Your task to perform on an android device: uninstall "Truecaller" Image 0: 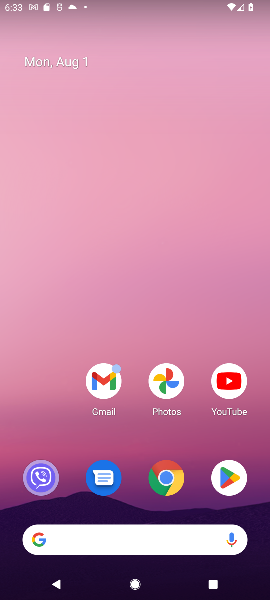
Step 0: press home button
Your task to perform on an android device: uninstall "Truecaller" Image 1: 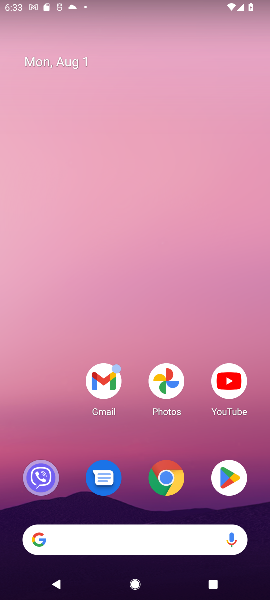
Step 1: click (238, 485)
Your task to perform on an android device: uninstall "Truecaller" Image 2: 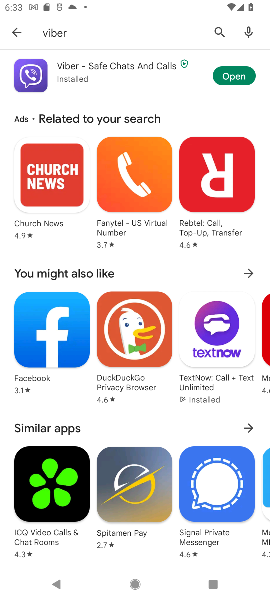
Step 2: click (216, 32)
Your task to perform on an android device: uninstall "Truecaller" Image 3: 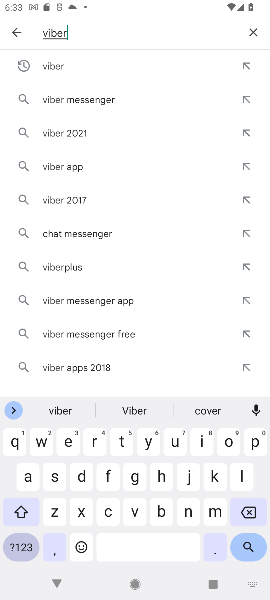
Step 3: click (254, 33)
Your task to perform on an android device: uninstall "Truecaller" Image 4: 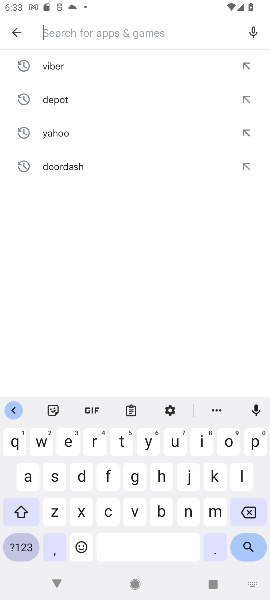
Step 4: click (118, 437)
Your task to perform on an android device: uninstall "Truecaller" Image 5: 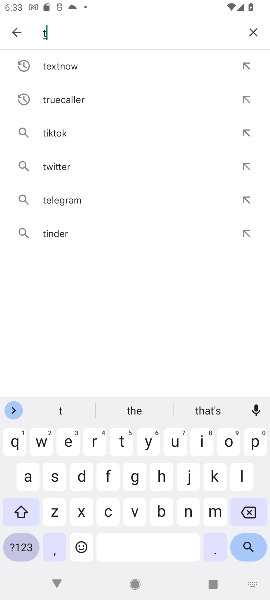
Step 5: click (96, 439)
Your task to perform on an android device: uninstall "Truecaller" Image 6: 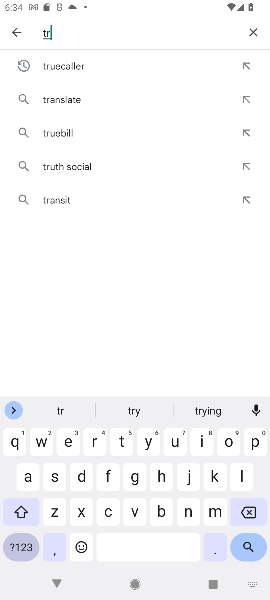
Step 6: click (92, 66)
Your task to perform on an android device: uninstall "Truecaller" Image 7: 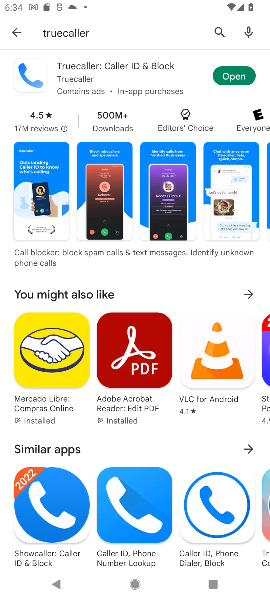
Step 7: click (53, 70)
Your task to perform on an android device: uninstall "Truecaller" Image 8: 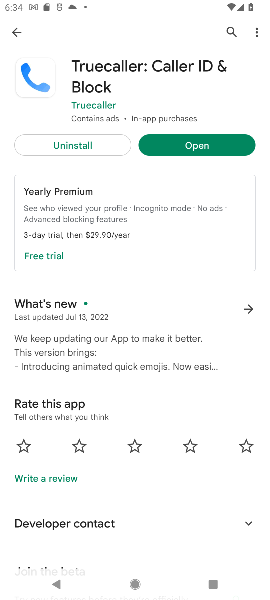
Step 8: click (65, 143)
Your task to perform on an android device: uninstall "Truecaller" Image 9: 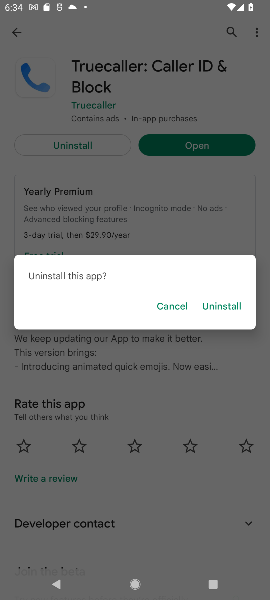
Step 9: click (216, 301)
Your task to perform on an android device: uninstall "Truecaller" Image 10: 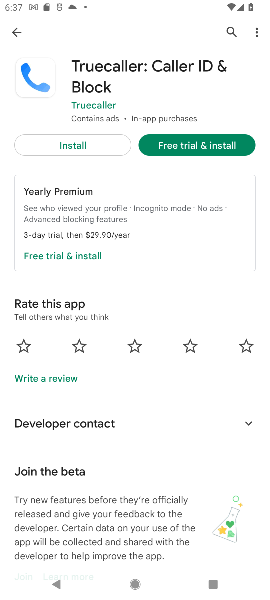
Step 10: task complete